Your task to perform on an android device: Open sound settings Image 0: 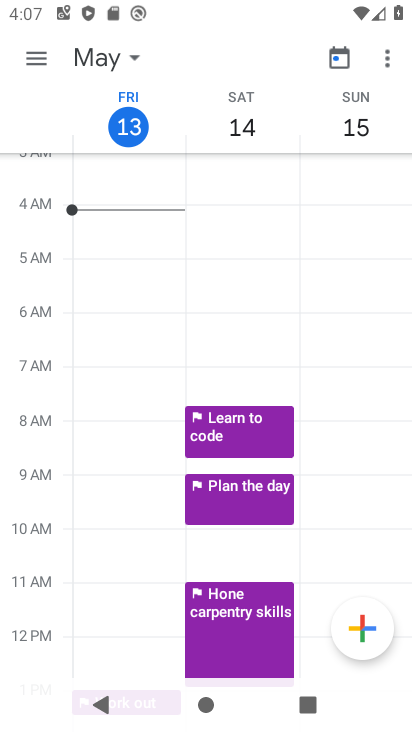
Step 0: press home button
Your task to perform on an android device: Open sound settings Image 1: 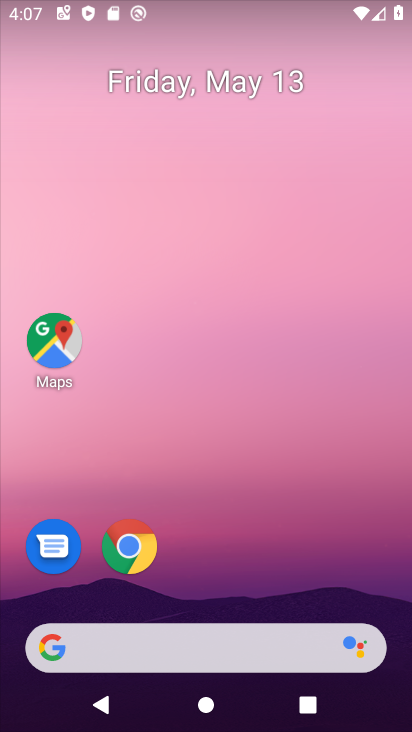
Step 1: drag from (191, 567) to (269, 5)
Your task to perform on an android device: Open sound settings Image 2: 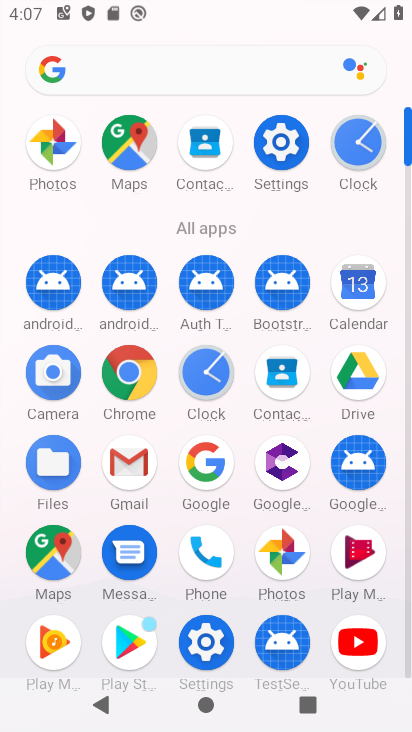
Step 2: click (285, 170)
Your task to perform on an android device: Open sound settings Image 3: 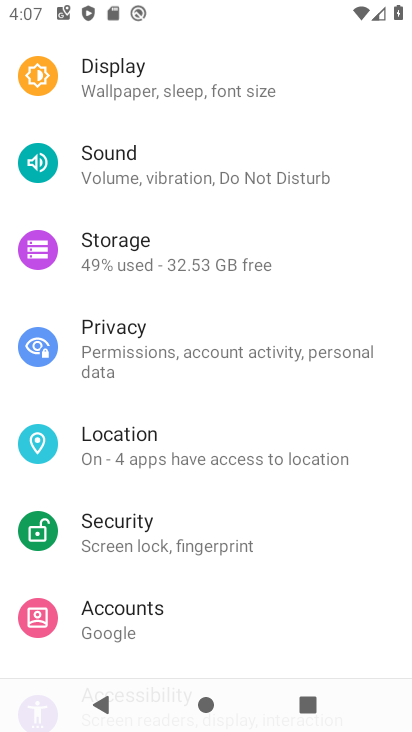
Step 3: click (179, 177)
Your task to perform on an android device: Open sound settings Image 4: 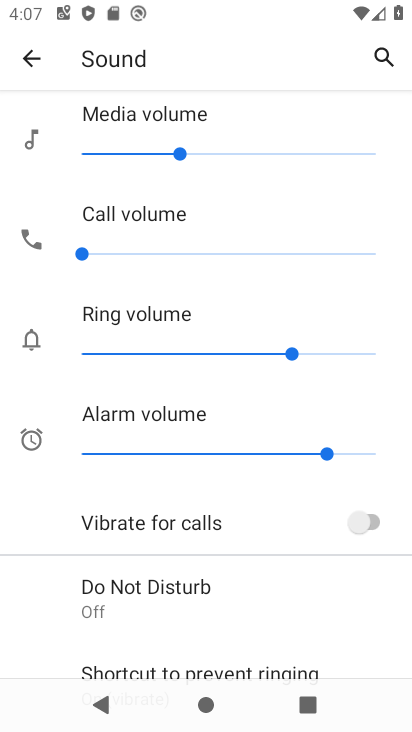
Step 4: task complete